Your task to perform on an android device: Go to settings Image 0: 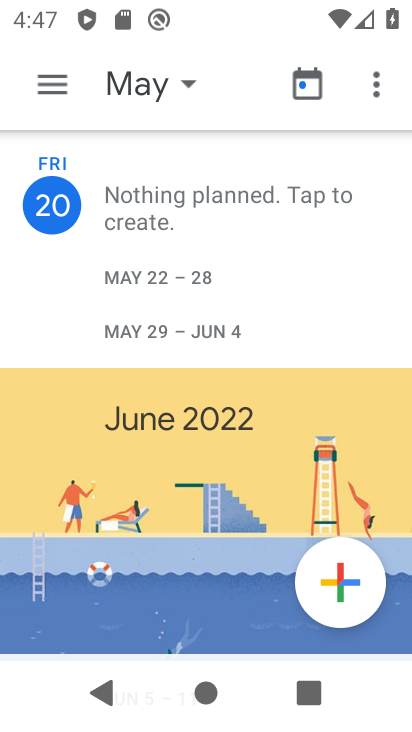
Step 0: press home button
Your task to perform on an android device: Go to settings Image 1: 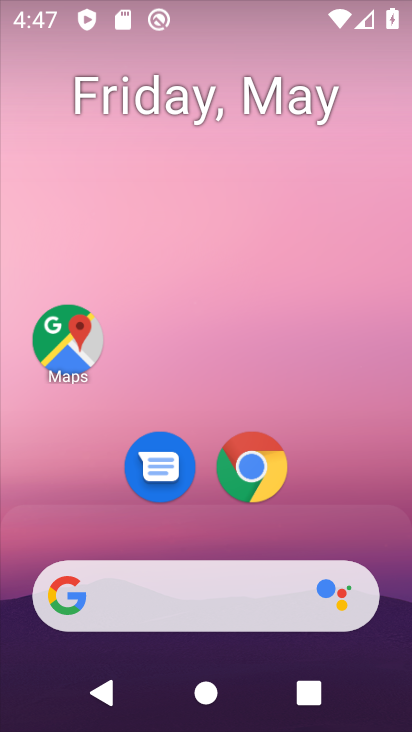
Step 1: drag from (343, 489) to (314, 99)
Your task to perform on an android device: Go to settings Image 2: 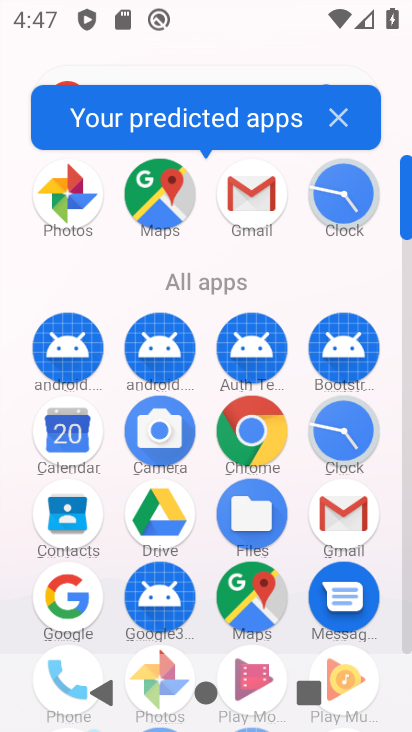
Step 2: drag from (208, 631) to (251, 191)
Your task to perform on an android device: Go to settings Image 3: 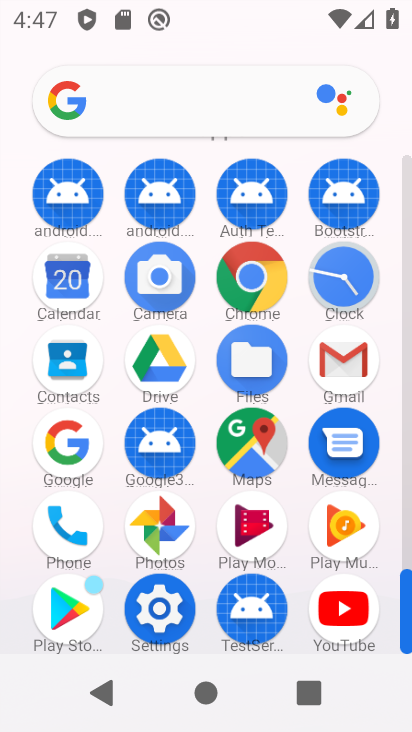
Step 3: click (161, 607)
Your task to perform on an android device: Go to settings Image 4: 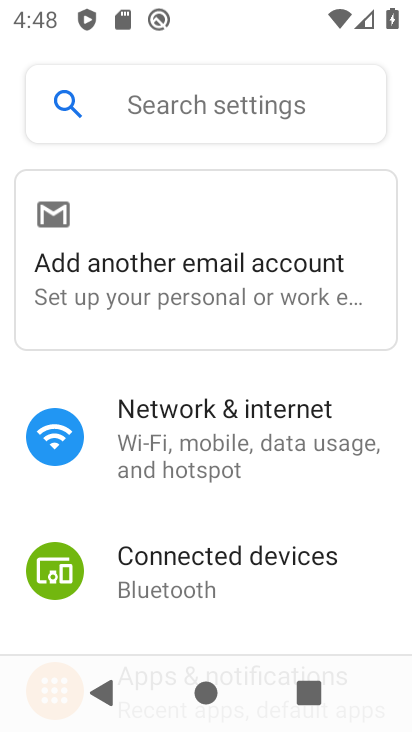
Step 4: task complete